Your task to perform on an android device: turn pop-ups on in chrome Image 0: 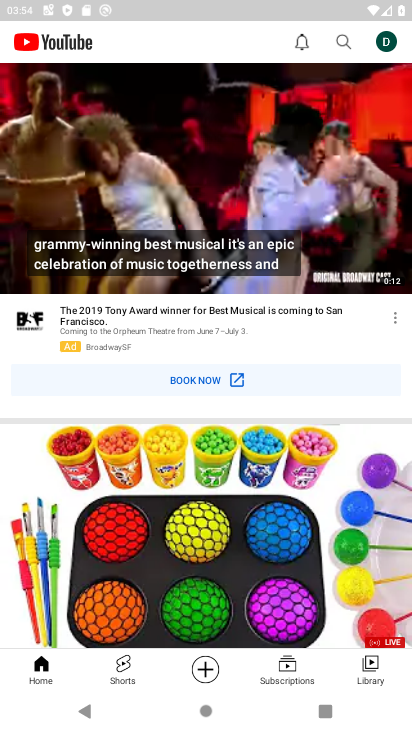
Step 0: press home button
Your task to perform on an android device: turn pop-ups on in chrome Image 1: 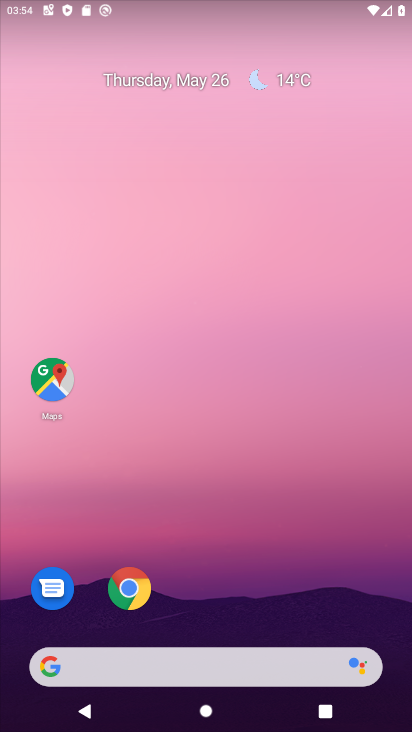
Step 1: click (137, 584)
Your task to perform on an android device: turn pop-ups on in chrome Image 2: 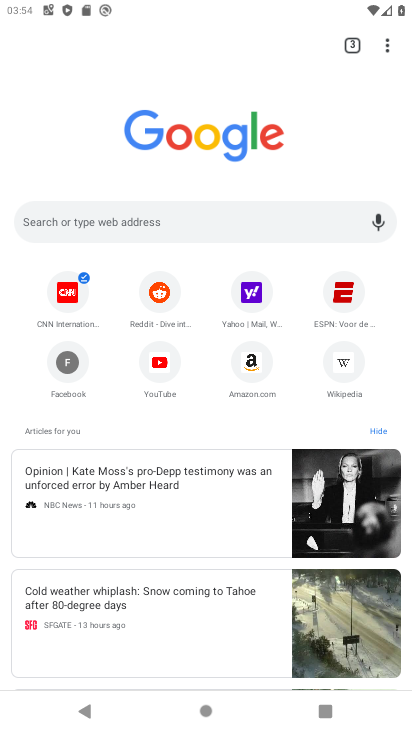
Step 2: click (384, 56)
Your task to perform on an android device: turn pop-ups on in chrome Image 3: 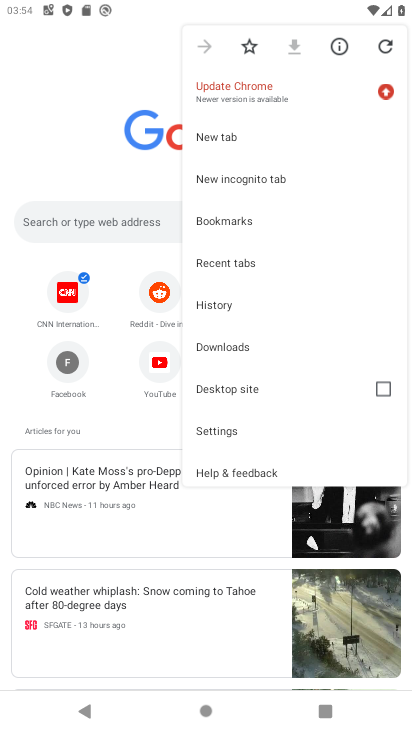
Step 3: click (244, 419)
Your task to perform on an android device: turn pop-ups on in chrome Image 4: 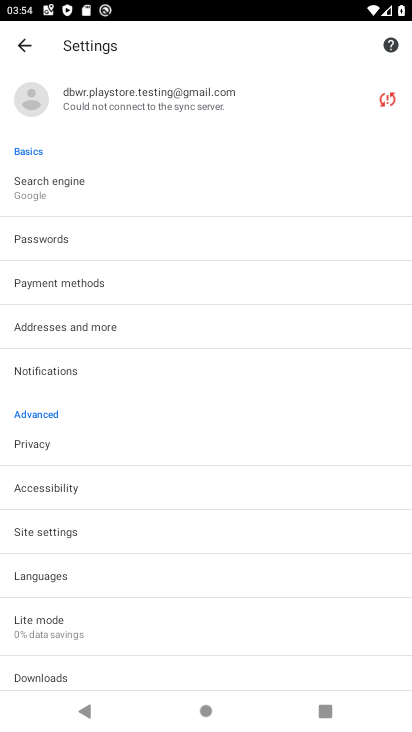
Step 4: drag from (119, 639) to (164, 498)
Your task to perform on an android device: turn pop-ups on in chrome Image 5: 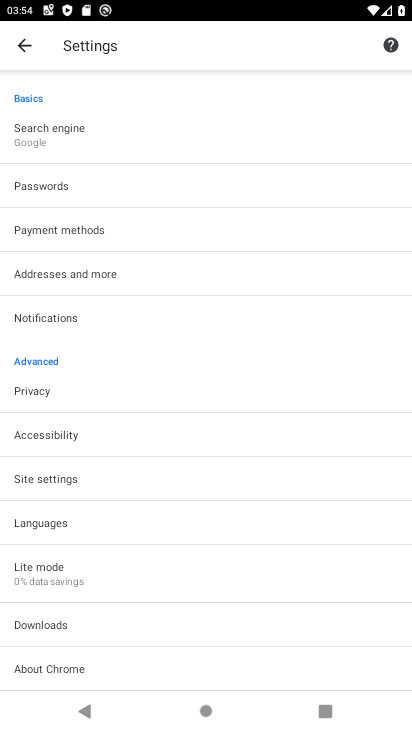
Step 5: click (180, 486)
Your task to perform on an android device: turn pop-ups on in chrome Image 6: 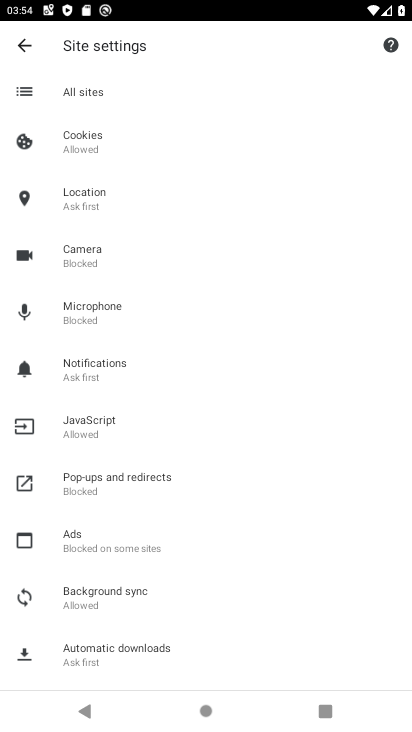
Step 6: click (181, 499)
Your task to perform on an android device: turn pop-ups on in chrome Image 7: 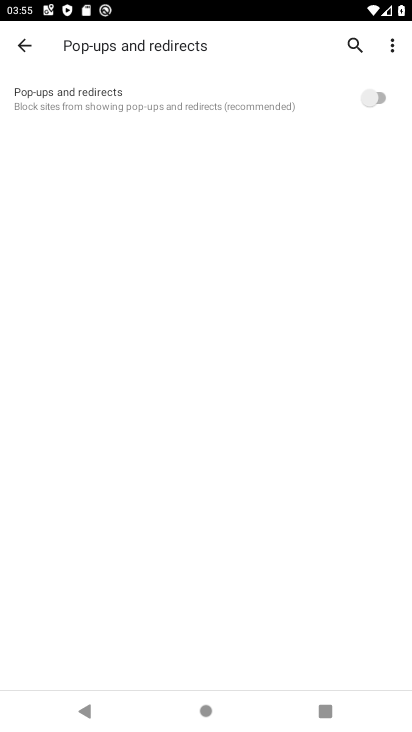
Step 7: click (367, 117)
Your task to perform on an android device: turn pop-ups on in chrome Image 8: 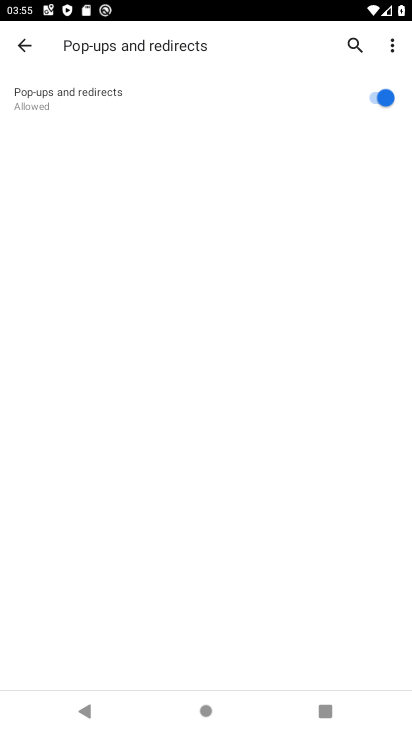
Step 8: task complete